Your task to perform on an android device: Open CNN.com Image 0: 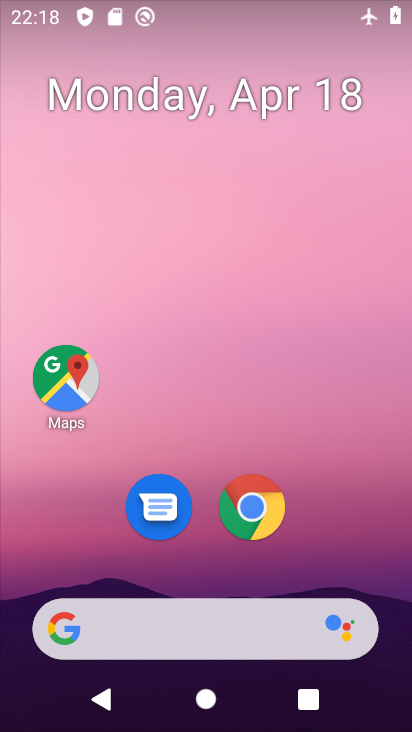
Step 0: click (274, 498)
Your task to perform on an android device: Open CNN.com Image 1: 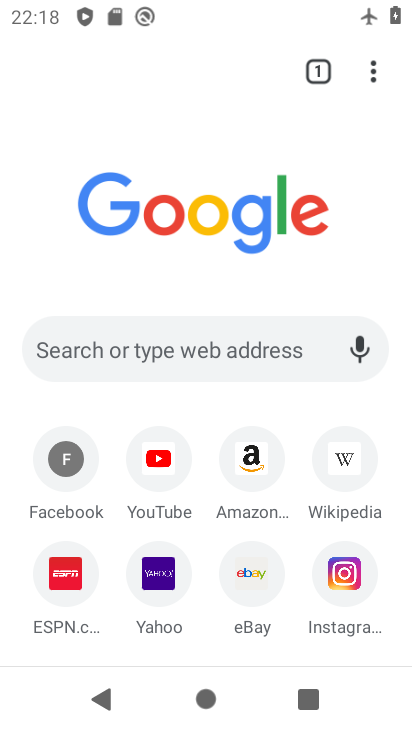
Step 1: click (240, 343)
Your task to perform on an android device: Open CNN.com Image 2: 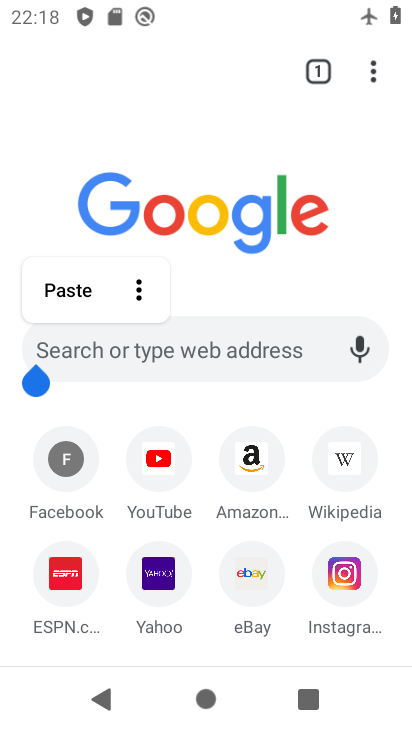
Step 2: click (240, 340)
Your task to perform on an android device: Open CNN.com Image 3: 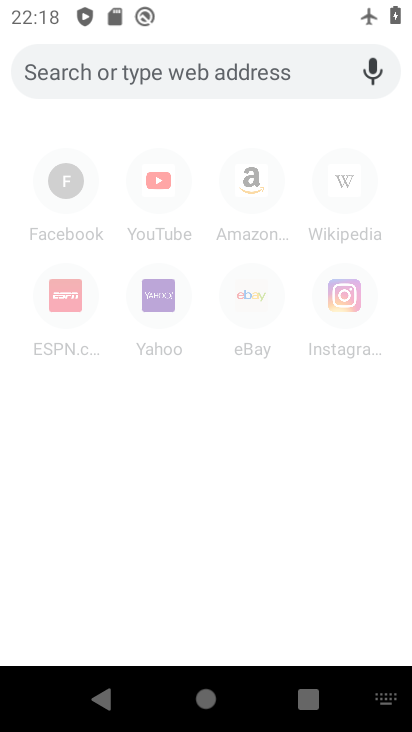
Step 3: type "CNN.com"
Your task to perform on an android device: Open CNN.com Image 4: 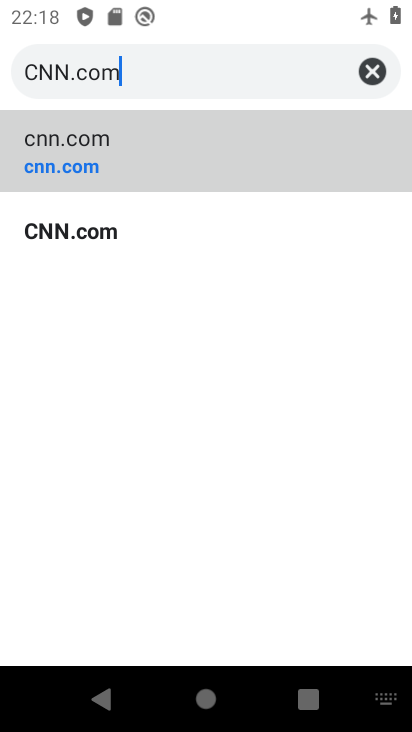
Step 4: click (88, 162)
Your task to perform on an android device: Open CNN.com Image 5: 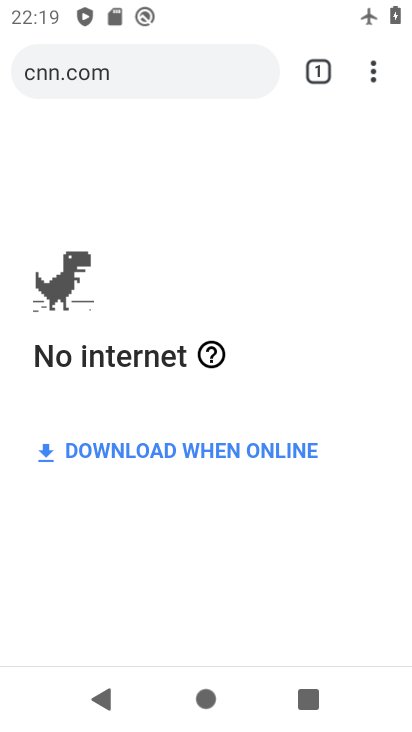
Step 5: task complete